Your task to perform on an android device: search for starred emails in the gmail app Image 0: 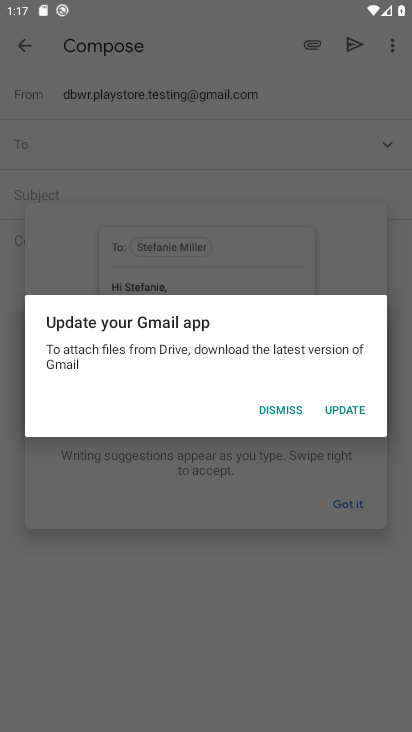
Step 0: press home button
Your task to perform on an android device: search for starred emails in the gmail app Image 1: 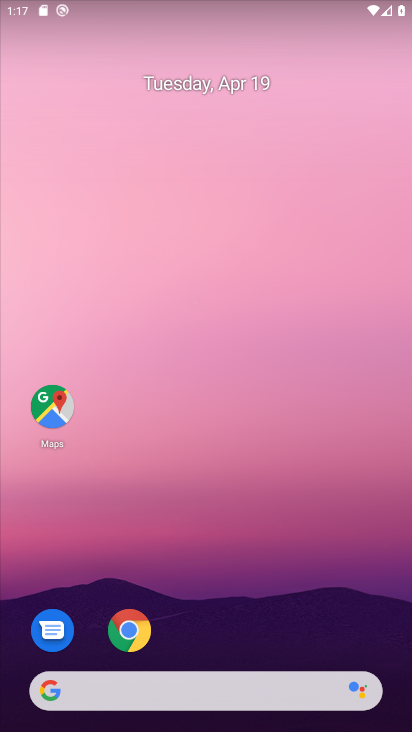
Step 1: drag from (313, 613) to (296, 35)
Your task to perform on an android device: search for starred emails in the gmail app Image 2: 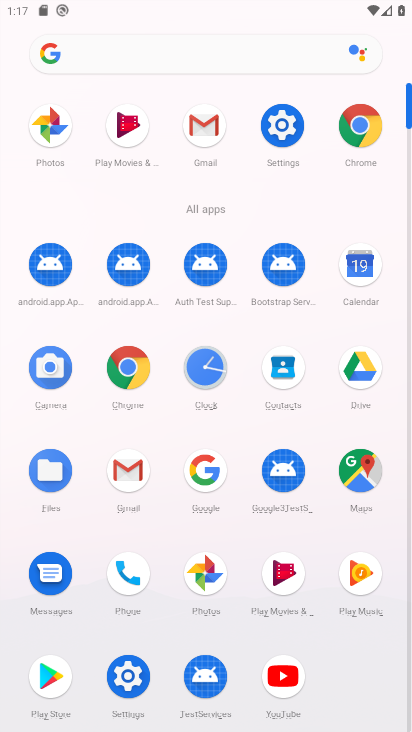
Step 2: click (208, 138)
Your task to perform on an android device: search for starred emails in the gmail app Image 3: 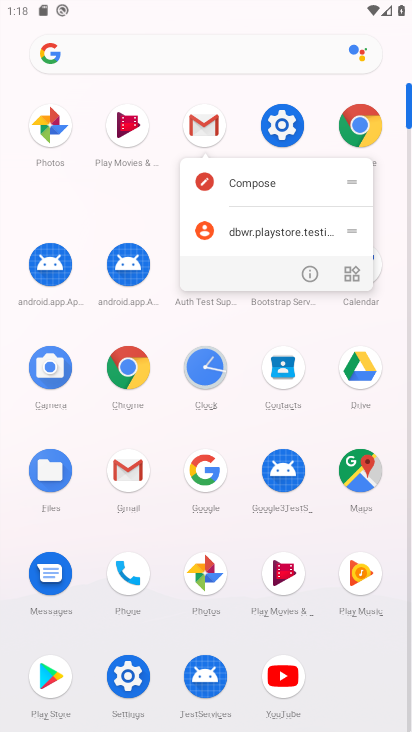
Step 3: click (215, 136)
Your task to perform on an android device: search for starred emails in the gmail app Image 4: 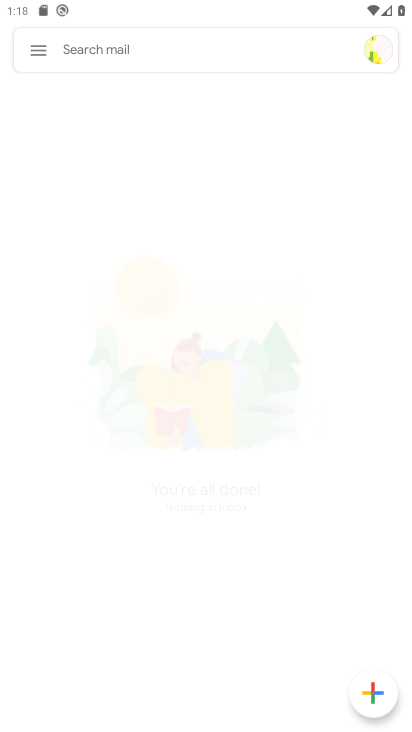
Step 4: click (36, 53)
Your task to perform on an android device: search for starred emails in the gmail app Image 5: 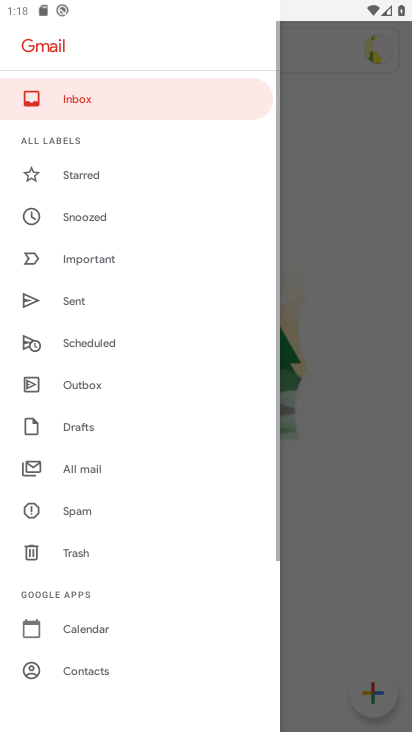
Step 5: click (145, 175)
Your task to perform on an android device: search for starred emails in the gmail app Image 6: 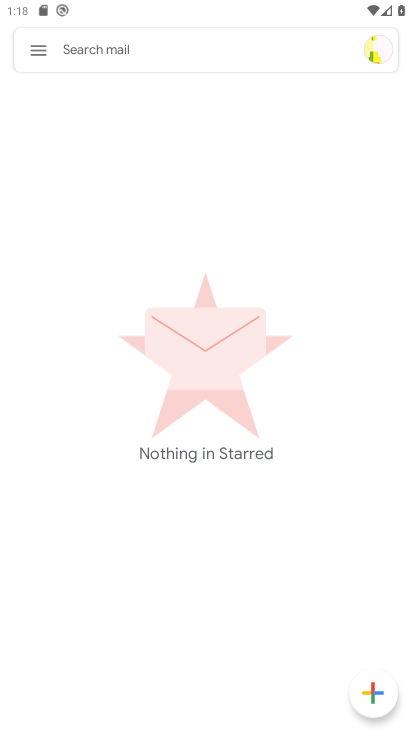
Step 6: task complete